Your task to perform on an android device: allow notifications from all sites in the chrome app Image 0: 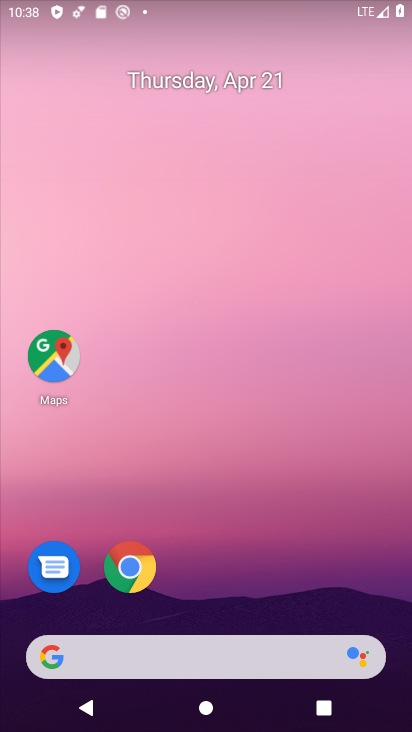
Step 0: click (141, 561)
Your task to perform on an android device: allow notifications from all sites in the chrome app Image 1: 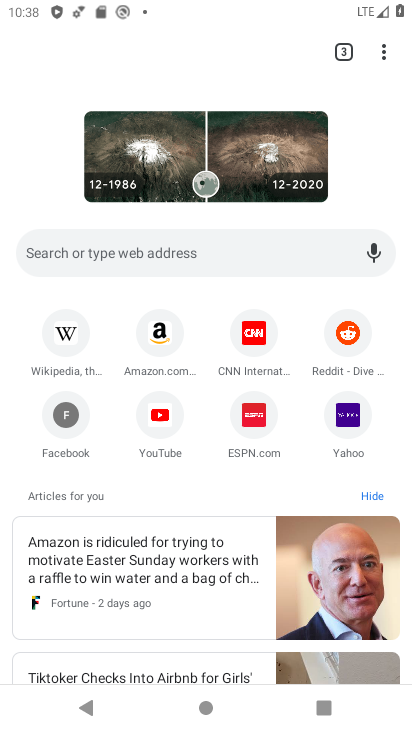
Step 1: click (384, 50)
Your task to perform on an android device: allow notifications from all sites in the chrome app Image 2: 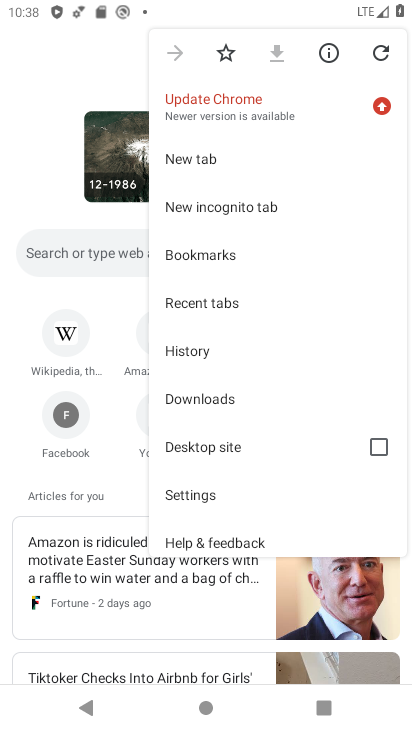
Step 2: click (192, 504)
Your task to perform on an android device: allow notifications from all sites in the chrome app Image 3: 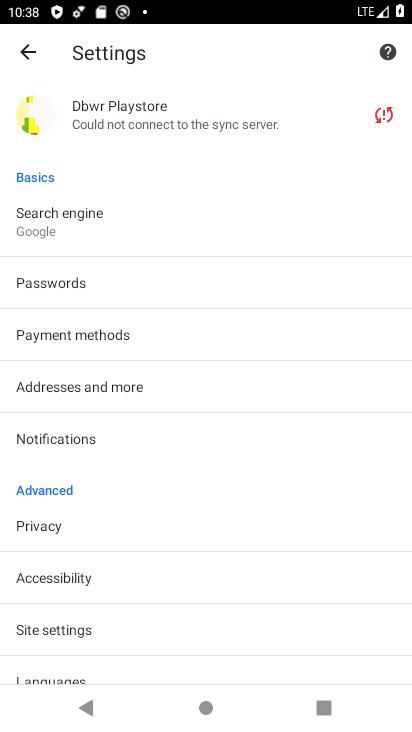
Step 3: click (76, 432)
Your task to perform on an android device: allow notifications from all sites in the chrome app Image 4: 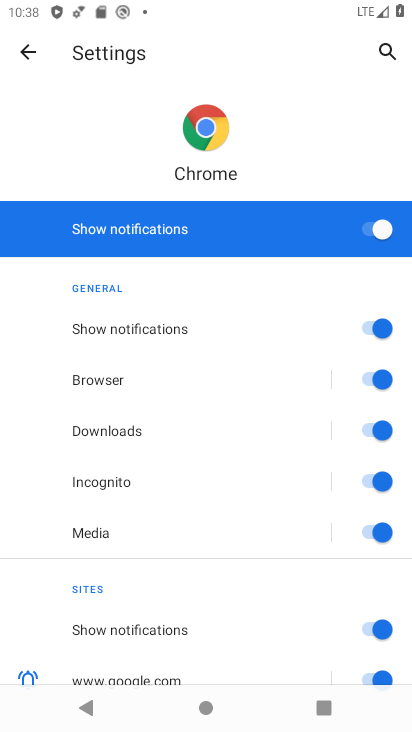
Step 4: click (24, 50)
Your task to perform on an android device: allow notifications from all sites in the chrome app Image 5: 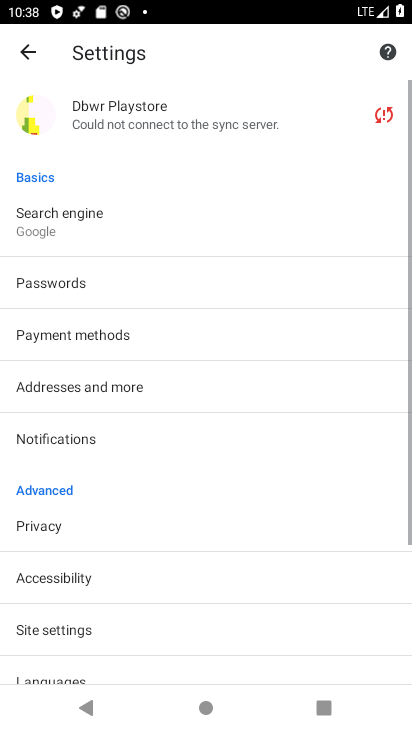
Step 5: click (76, 628)
Your task to perform on an android device: allow notifications from all sites in the chrome app Image 6: 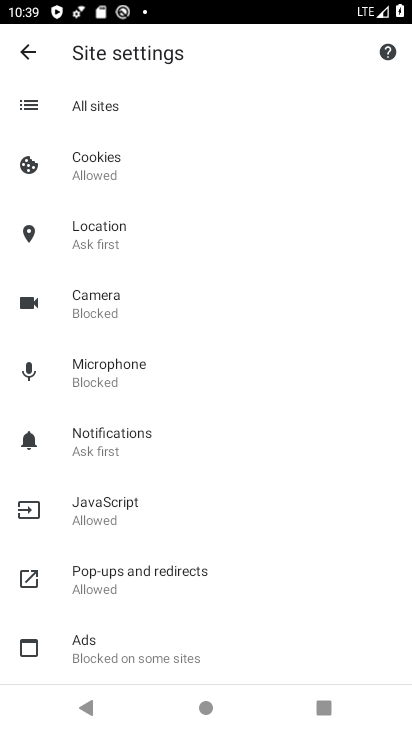
Step 6: click (122, 446)
Your task to perform on an android device: allow notifications from all sites in the chrome app Image 7: 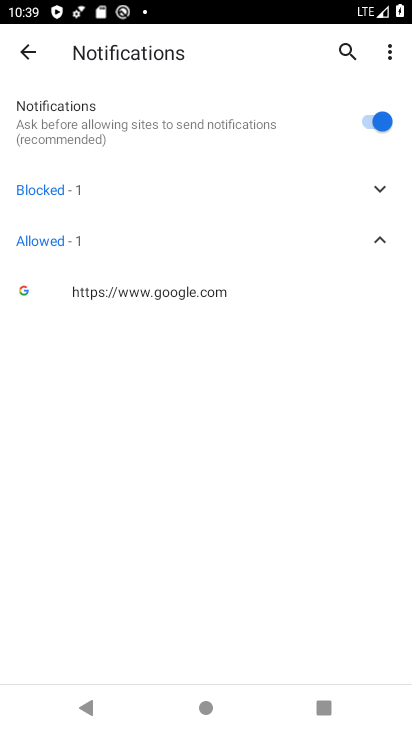
Step 7: task complete